Your task to perform on an android device: Open the phone app and click the voicemail tab. Image 0: 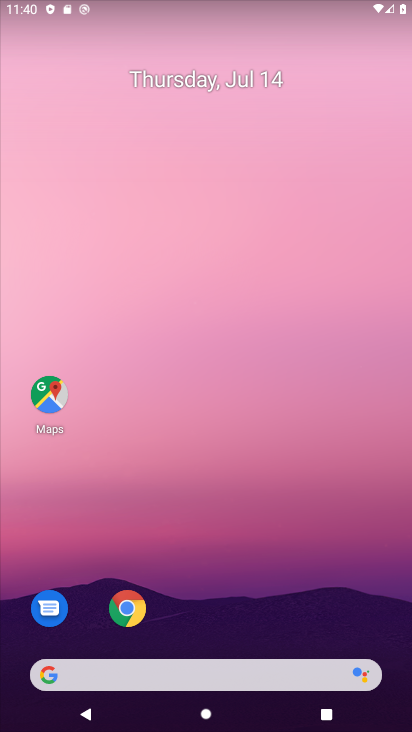
Step 0: drag from (204, 619) to (283, 90)
Your task to perform on an android device: Open the phone app and click the voicemail tab. Image 1: 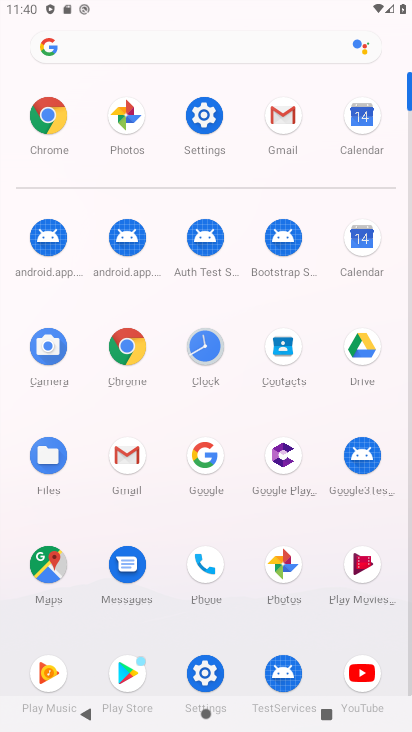
Step 1: click (190, 566)
Your task to perform on an android device: Open the phone app and click the voicemail tab. Image 2: 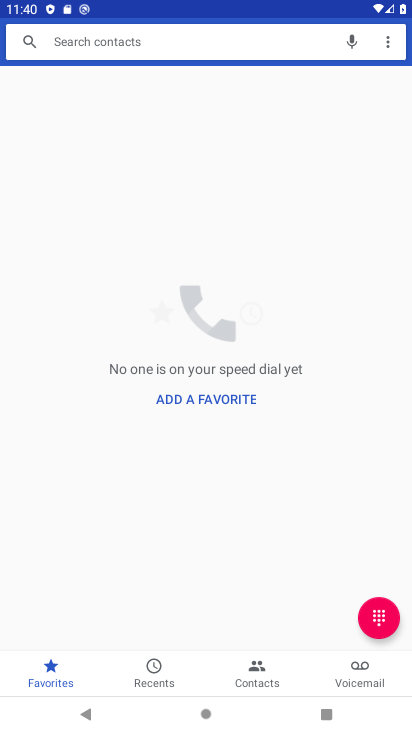
Step 2: click (355, 669)
Your task to perform on an android device: Open the phone app and click the voicemail tab. Image 3: 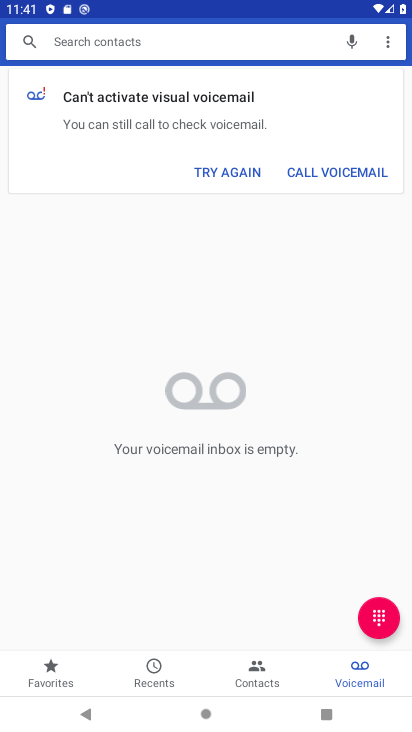
Step 3: task complete